Your task to perform on an android device: Open Google Image 0: 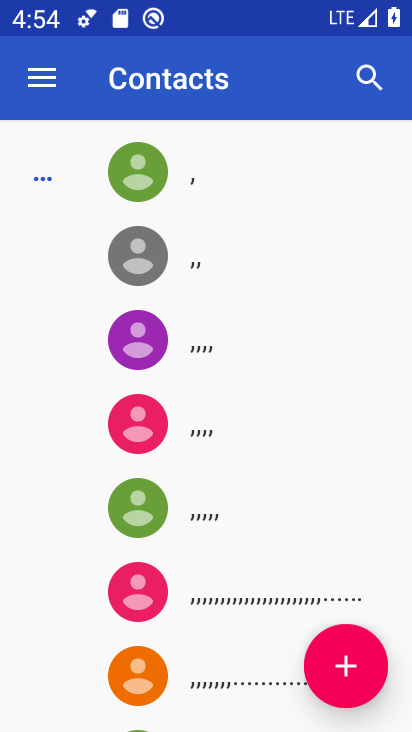
Step 0: press home button
Your task to perform on an android device: Open Google Image 1: 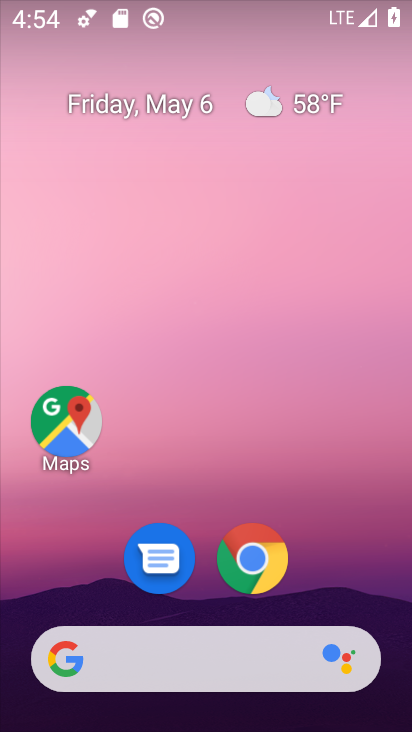
Step 1: click (267, 558)
Your task to perform on an android device: Open Google Image 2: 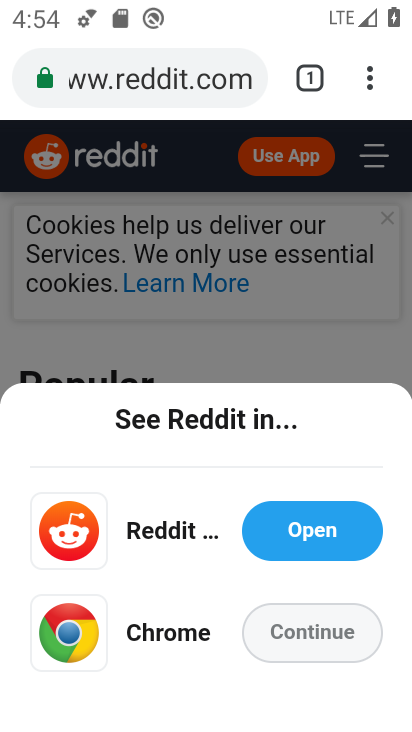
Step 2: press home button
Your task to perform on an android device: Open Google Image 3: 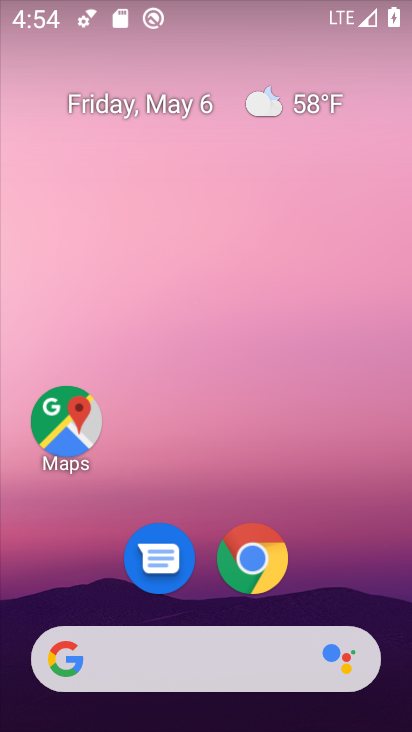
Step 3: click (263, 569)
Your task to perform on an android device: Open Google Image 4: 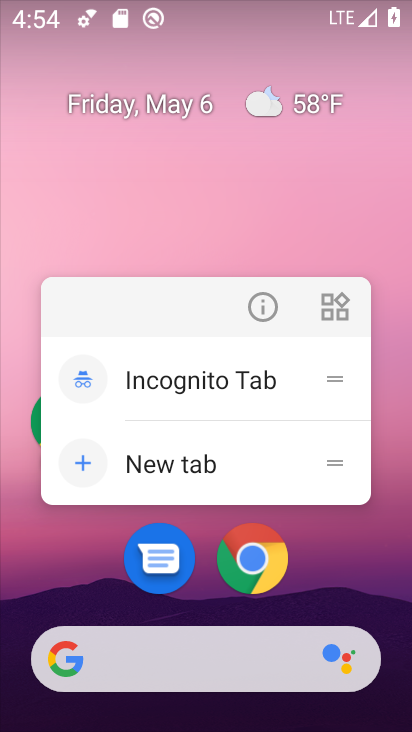
Step 4: drag from (318, 619) to (353, 5)
Your task to perform on an android device: Open Google Image 5: 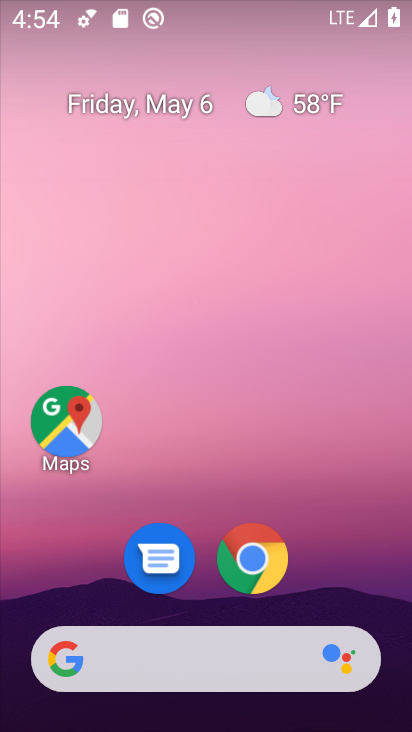
Step 5: drag from (310, 612) to (379, 7)
Your task to perform on an android device: Open Google Image 6: 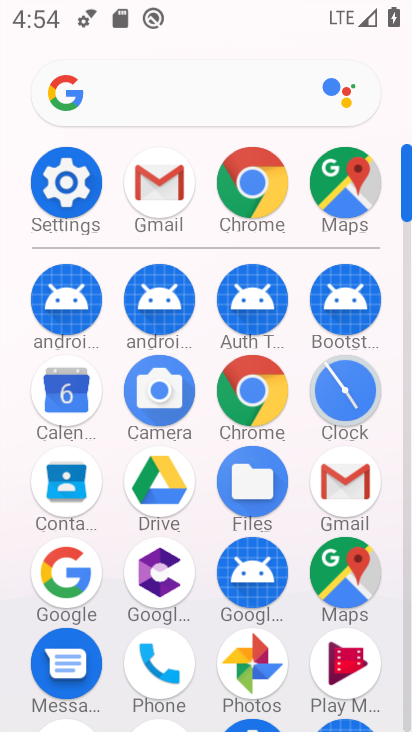
Step 6: click (258, 390)
Your task to perform on an android device: Open Google Image 7: 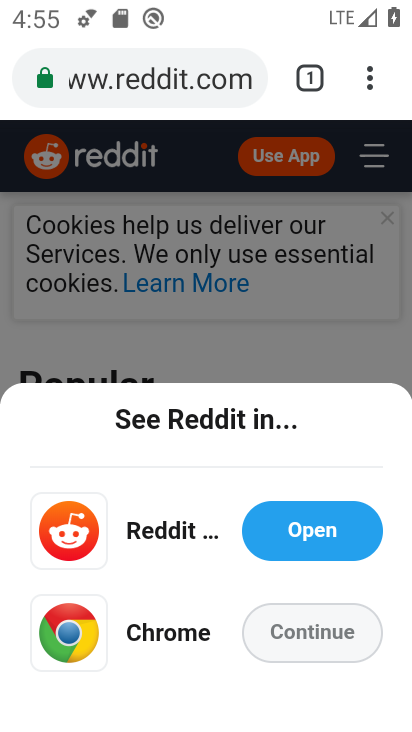
Step 7: task complete